Your task to perform on an android device: Empty the shopping cart on ebay.com. Image 0: 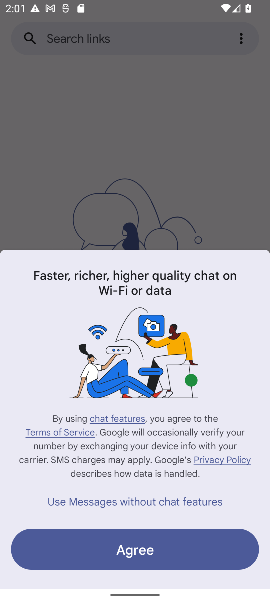
Step 0: press home button
Your task to perform on an android device: Empty the shopping cart on ebay.com. Image 1: 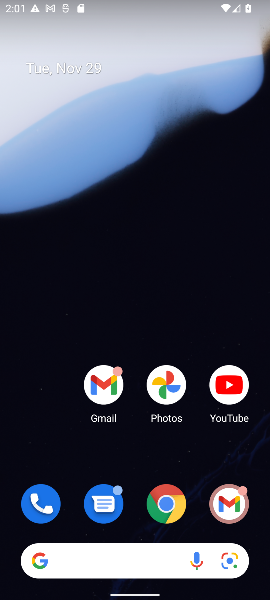
Step 1: click (169, 512)
Your task to perform on an android device: Empty the shopping cart on ebay.com. Image 2: 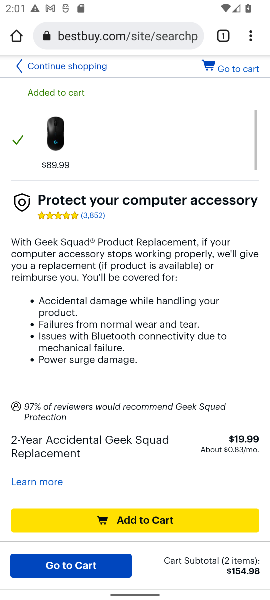
Step 2: click (109, 32)
Your task to perform on an android device: Empty the shopping cart on ebay.com. Image 3: 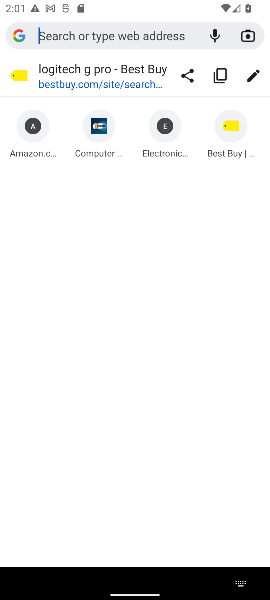
Step 3: type "ebay.com"
Your task to perform on an android device: Empty the shopping cart on ebay.com. Image 4: 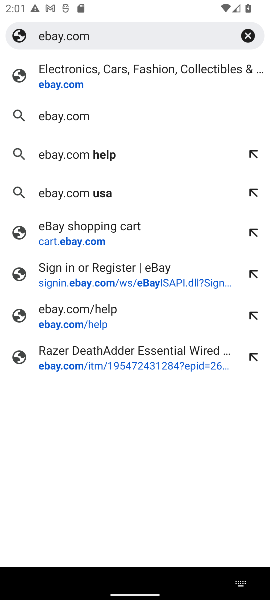
Step 4: click (59, 82)
Your task to perform on an android device: Empty the shopping cart on ebay.com. Image 5: 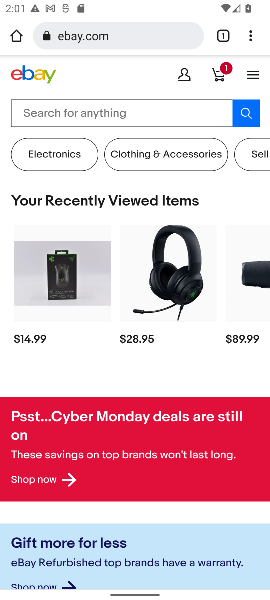
Step 5: click (223, 75)
Your task to perform on an android device: Empty the shopping cart on ebay.com. Image 6: 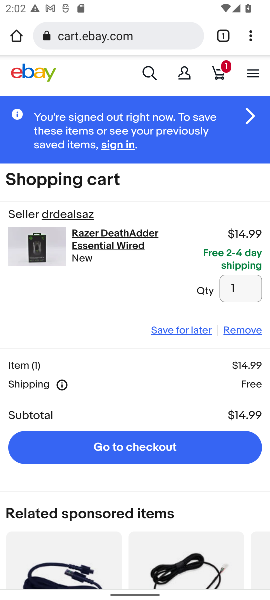
Step 6: click (238, 333)
Your task to perform on an android device: Empty the shopping cart on ebay.com. Image 7: 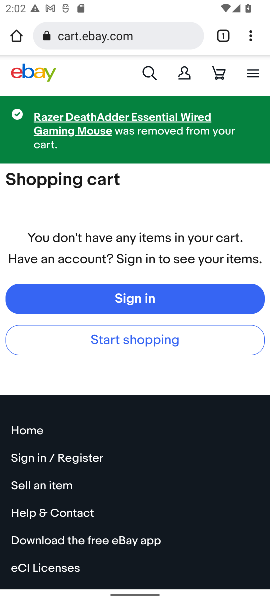
Step 7: task complete